Your task to perform on an android device: Open calendar and show me the first week of next month Image 0: 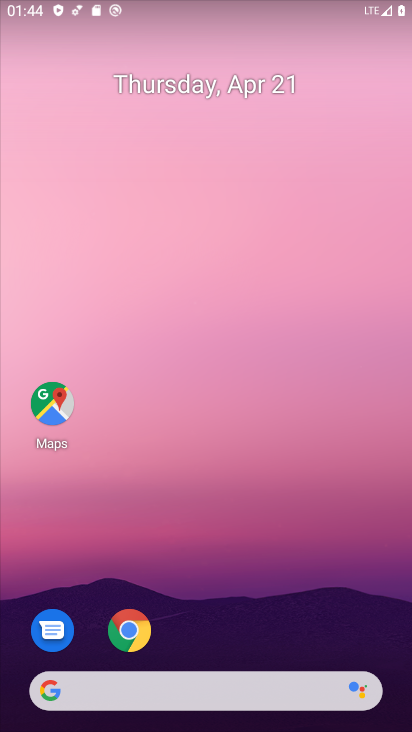
Step 0: drag from (210, 613) to (301, 54)
Your task to perform on an android device: Open calendar and show me the first week of next month Image 1: 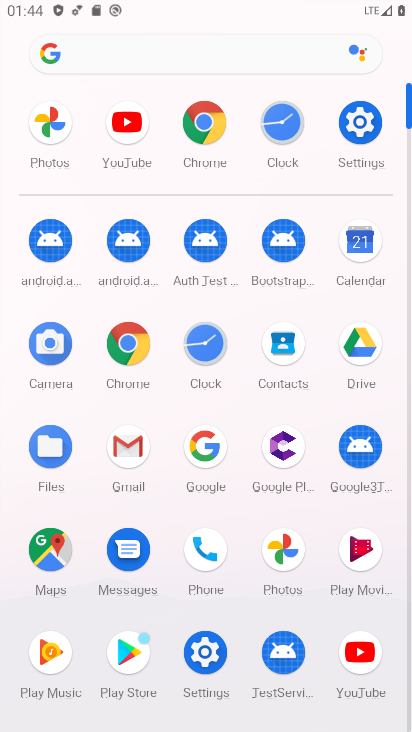
Step 1: click (349, 262)
Your task to perform on an android device: Open calendar and show me the first week of next month Image 2: 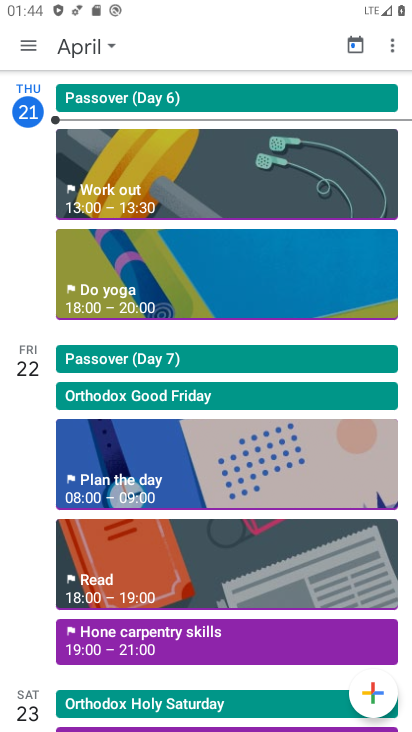
Step 2: click (101, 50)
Your task to perform on an android device: Open calendar and show me the first week of next month Image 3: 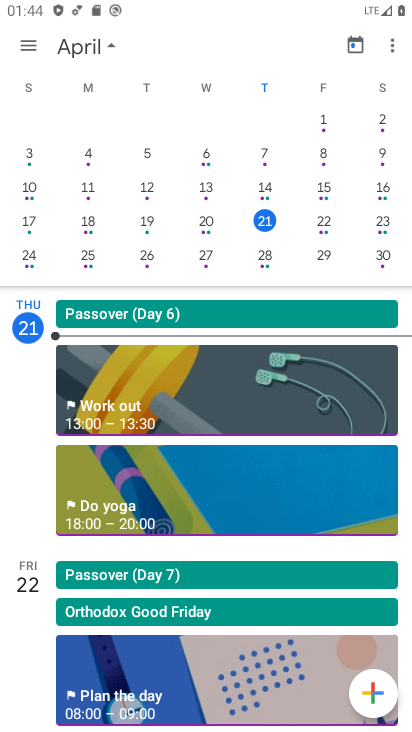
Step 3: drag from (362, 206) to (128, 86)
Your task to perform on an android device: Open calendar and show me the first week of next month Image 4: 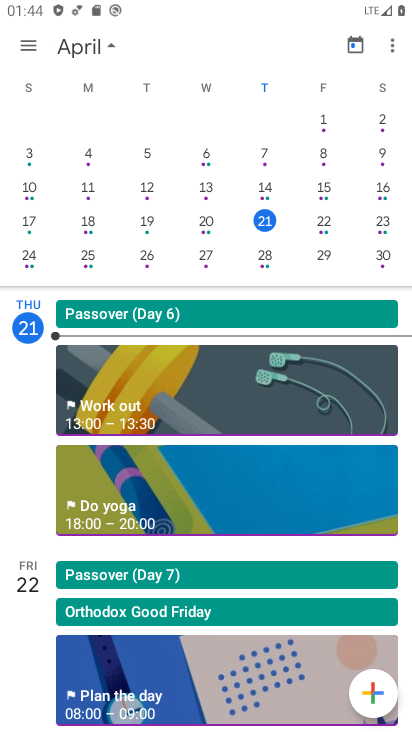
Step 4: drag from (396, 190) to (7, 180)
Your task to perform on an android device: Open calendar and show me the first week of next month Image 5: 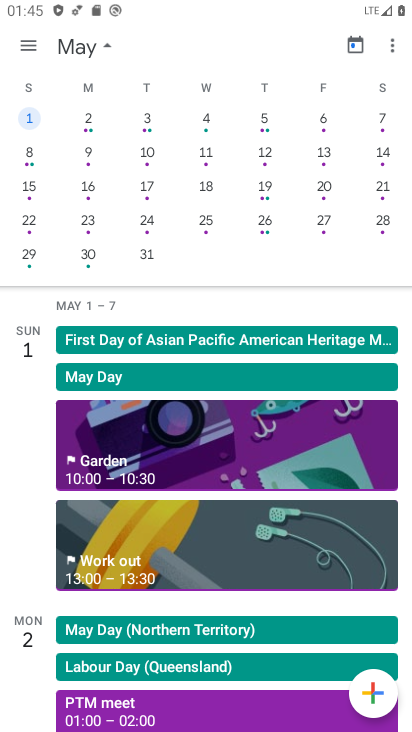
Step 5: click (209, 110)
Your task to perform on an android device: Open calendar and show me the first week of next month Image 6: 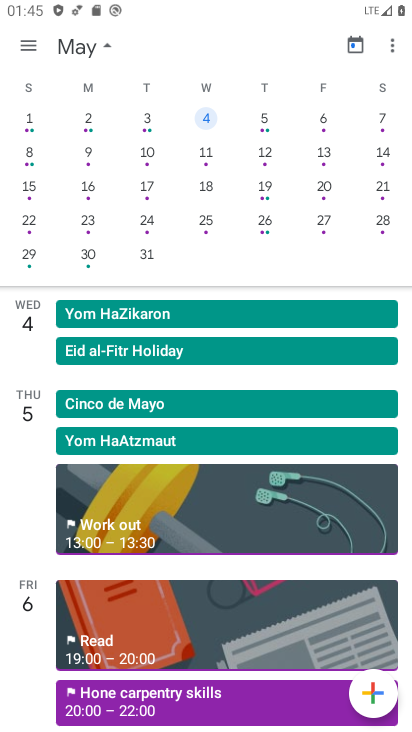
Step 6: task complete